Your task to perform on an android device: Open the stopwatch Image 0: 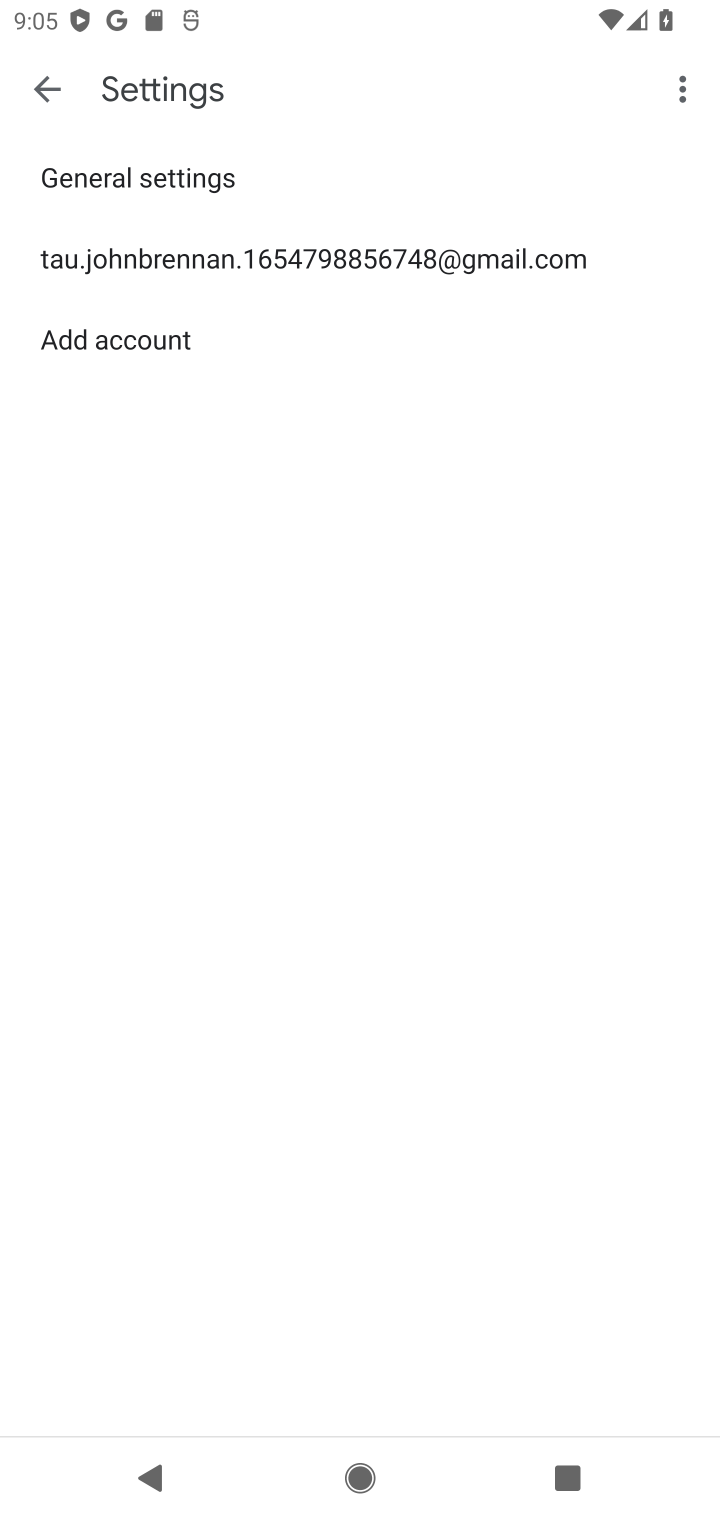
Step 0: press home button
Your task to perform on an android device: Open the stopwatch Image 1: 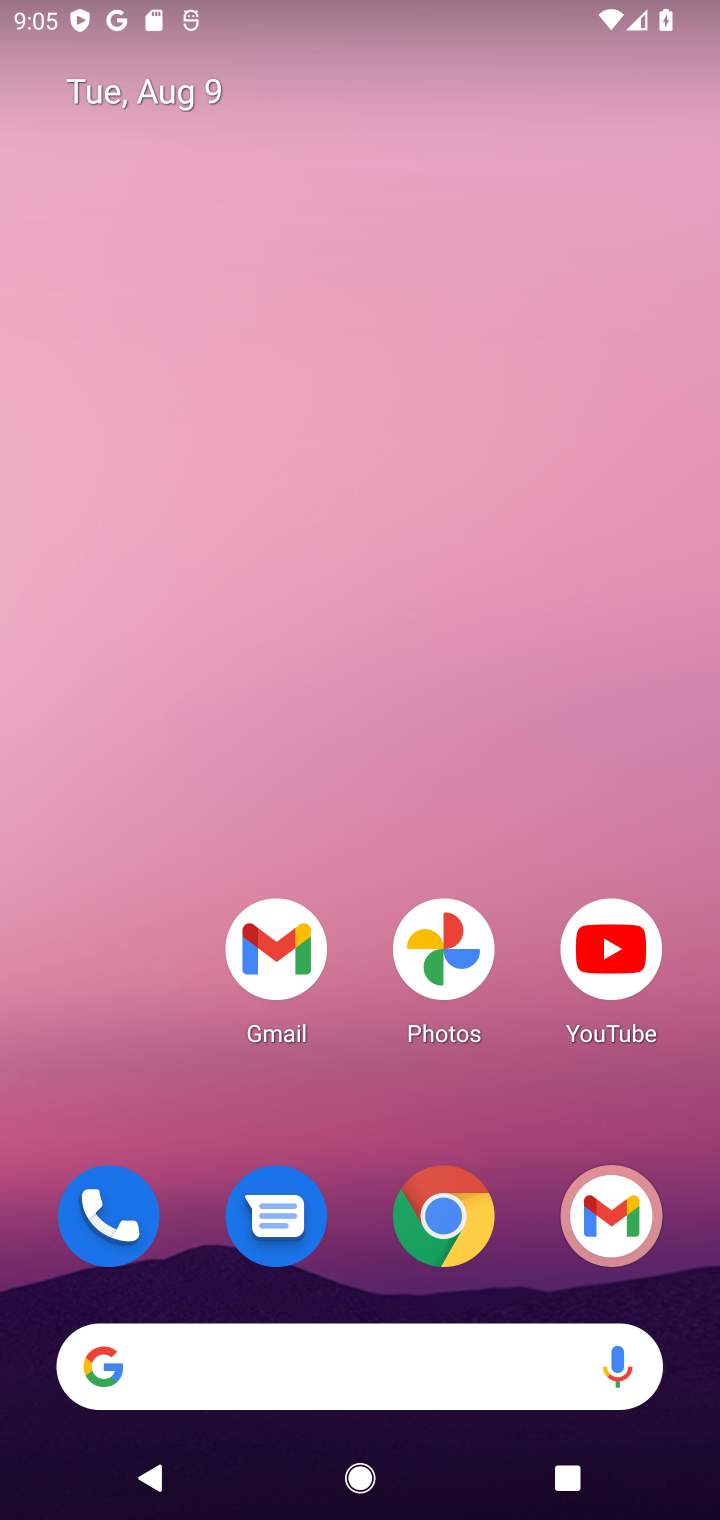
Step 1: drag from (318, 1315) to (462, 461)
Your task to perform on an android device: Open the stopwatch Image 2: 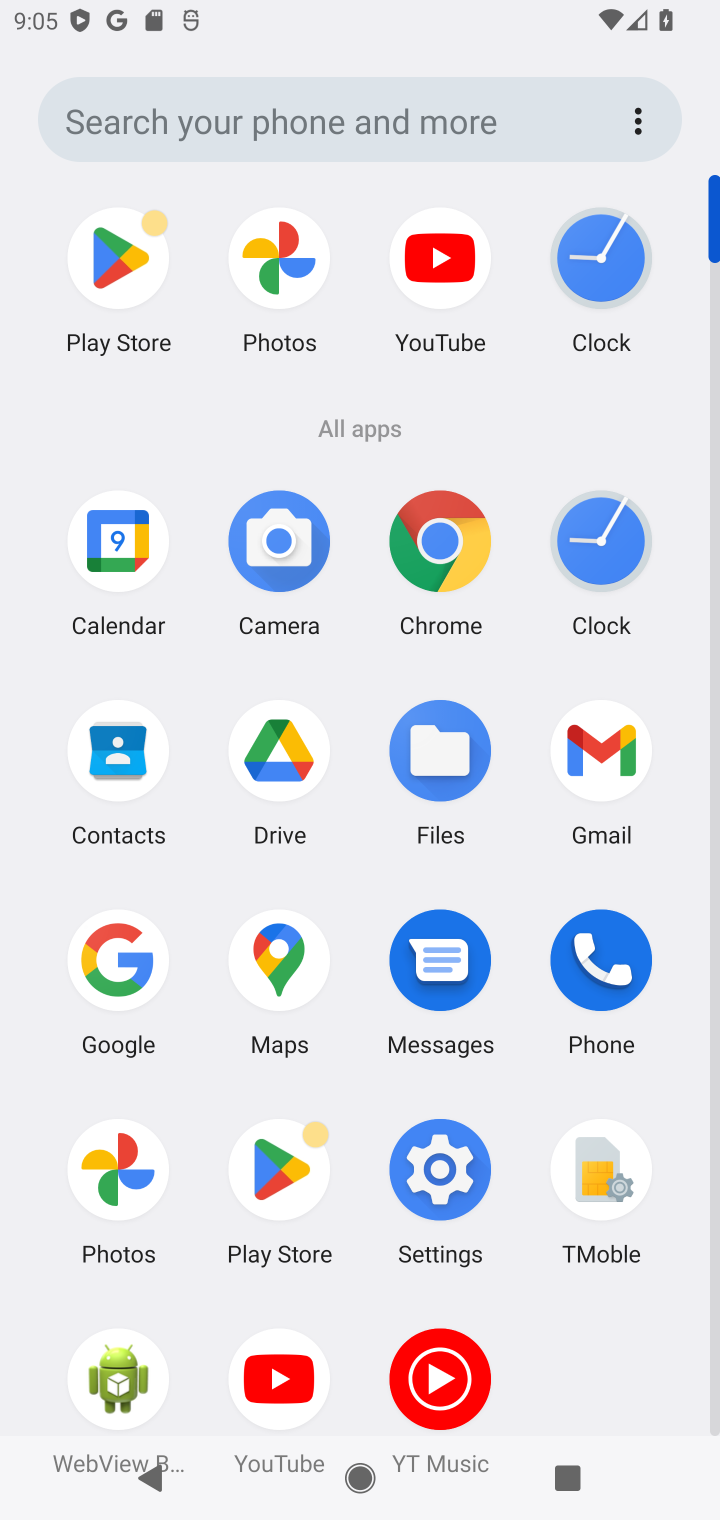
Step 2: click (593, 568)
Your task to perform on an android device: Open the stopwatch Image 3: 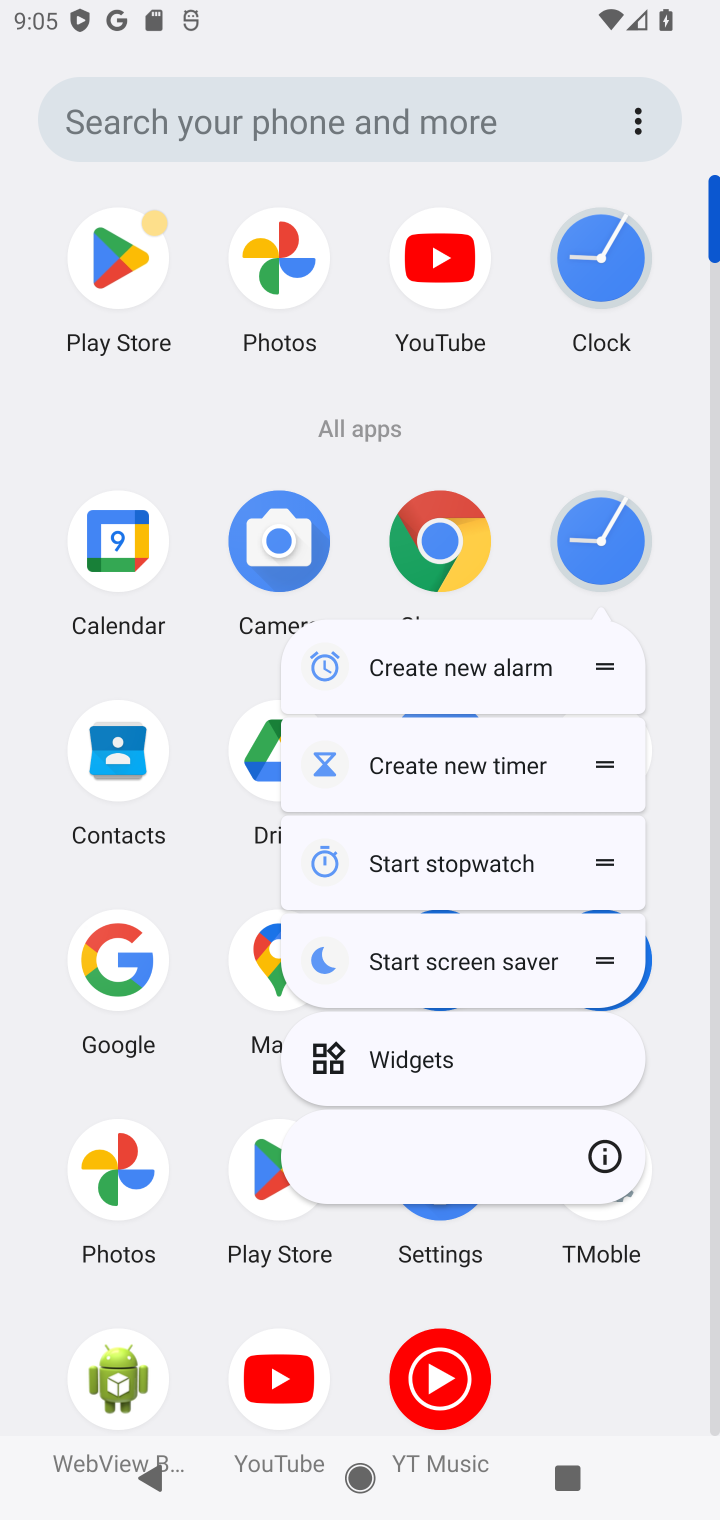
Step 3: click (585, 538)
Your task to perform on an android device: Open the stopwatch Image 4: 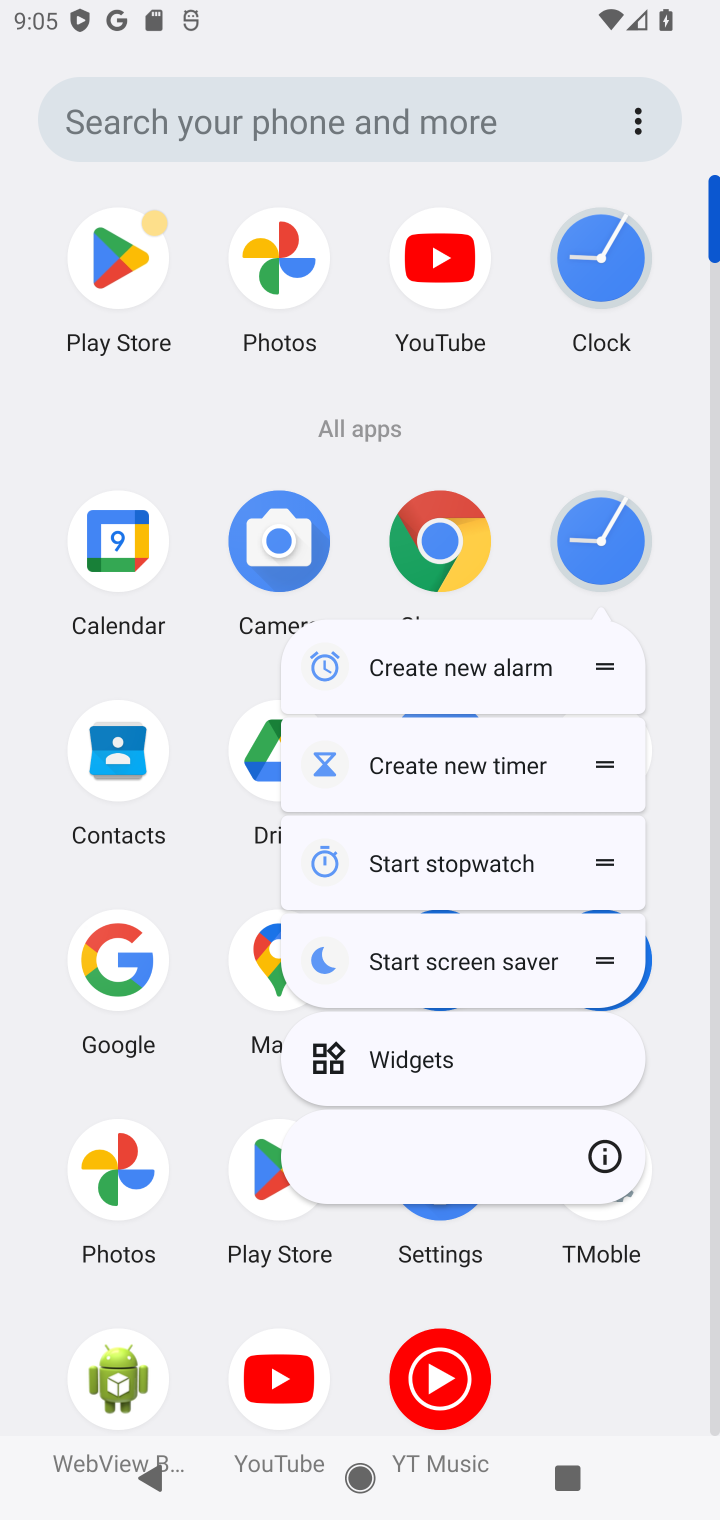
Step 4: click (618, 552)
Your task to perform on an android device: Open the stopwatch Image 5: 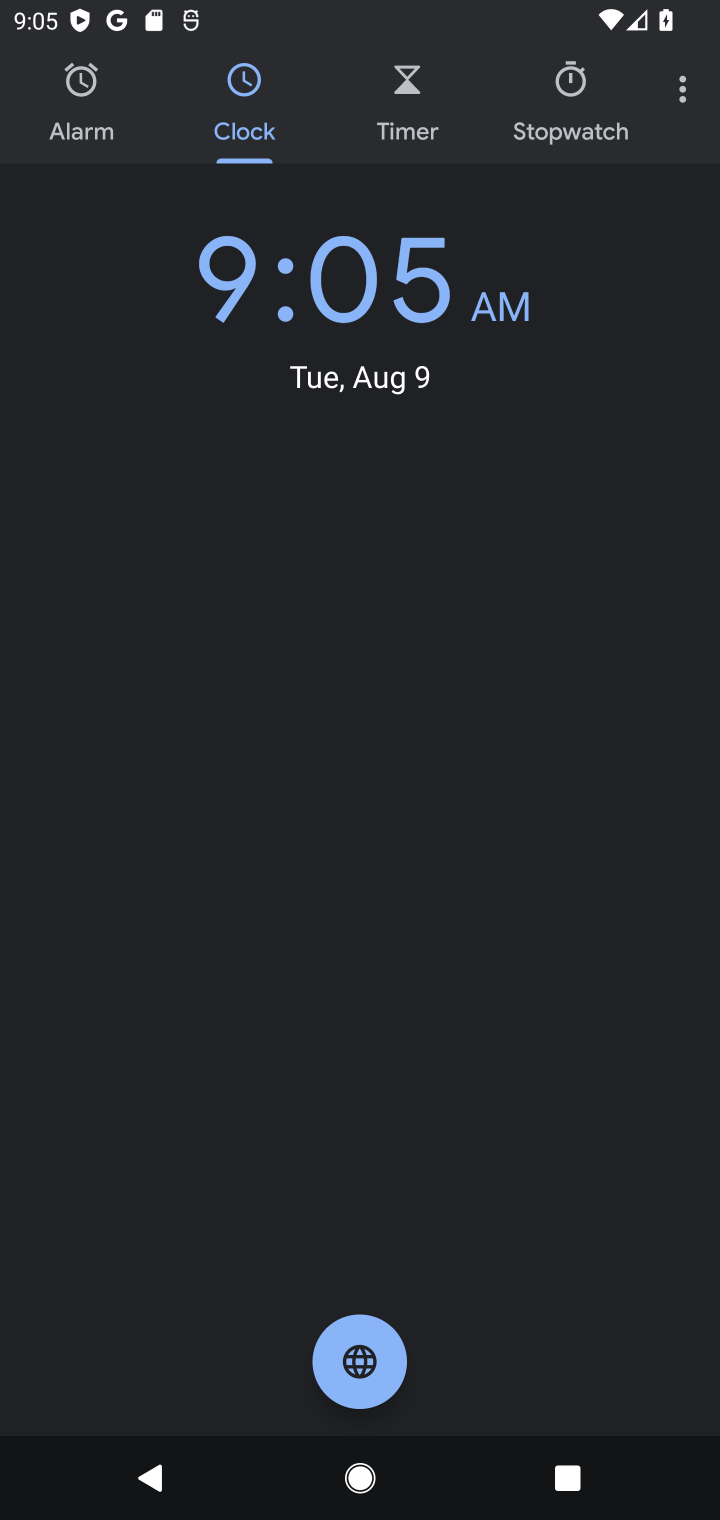
Step 5: click (566, 129)
Your task to perform on an android device: Open the stopwatch Image 6: 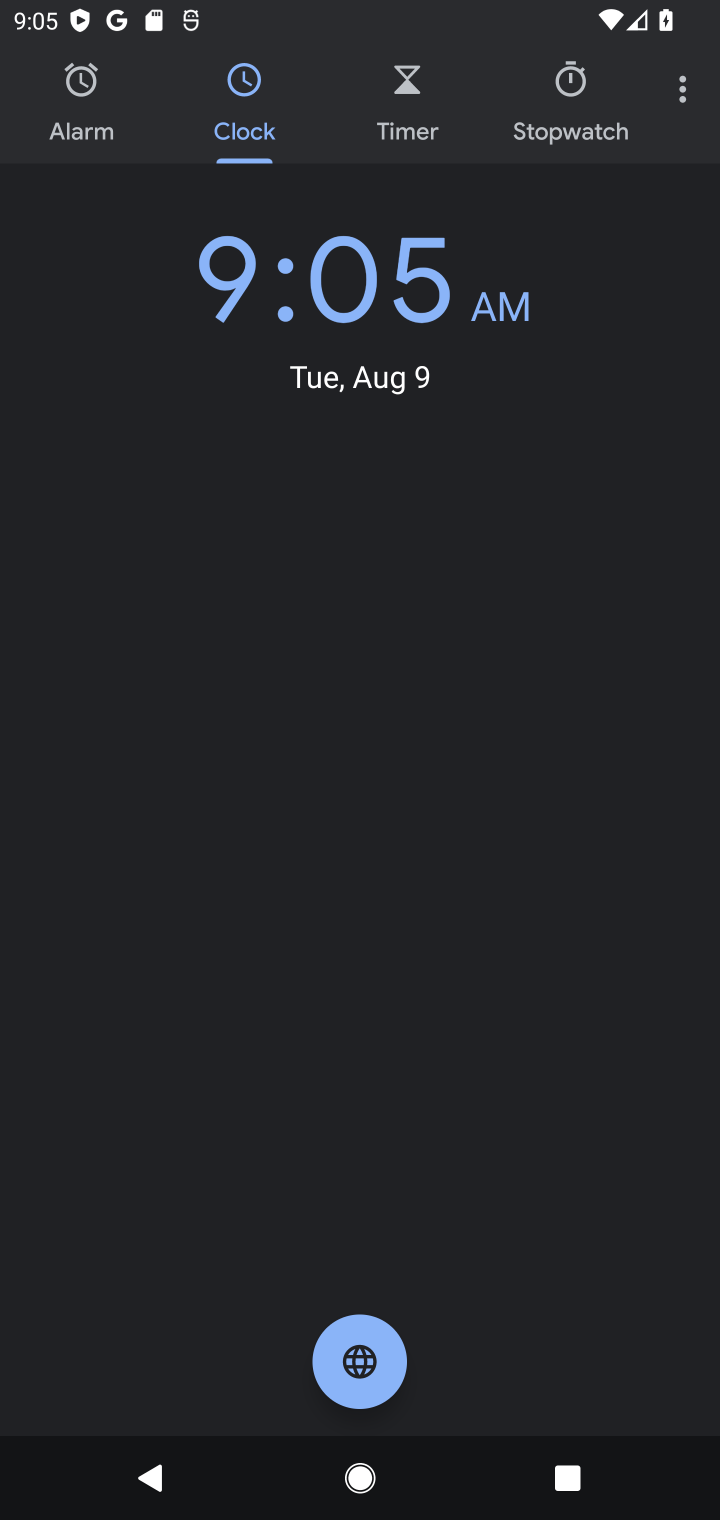
Step 6: click (565, 95)
Your task to perform on an android device: Open the stopwatch Image 7: 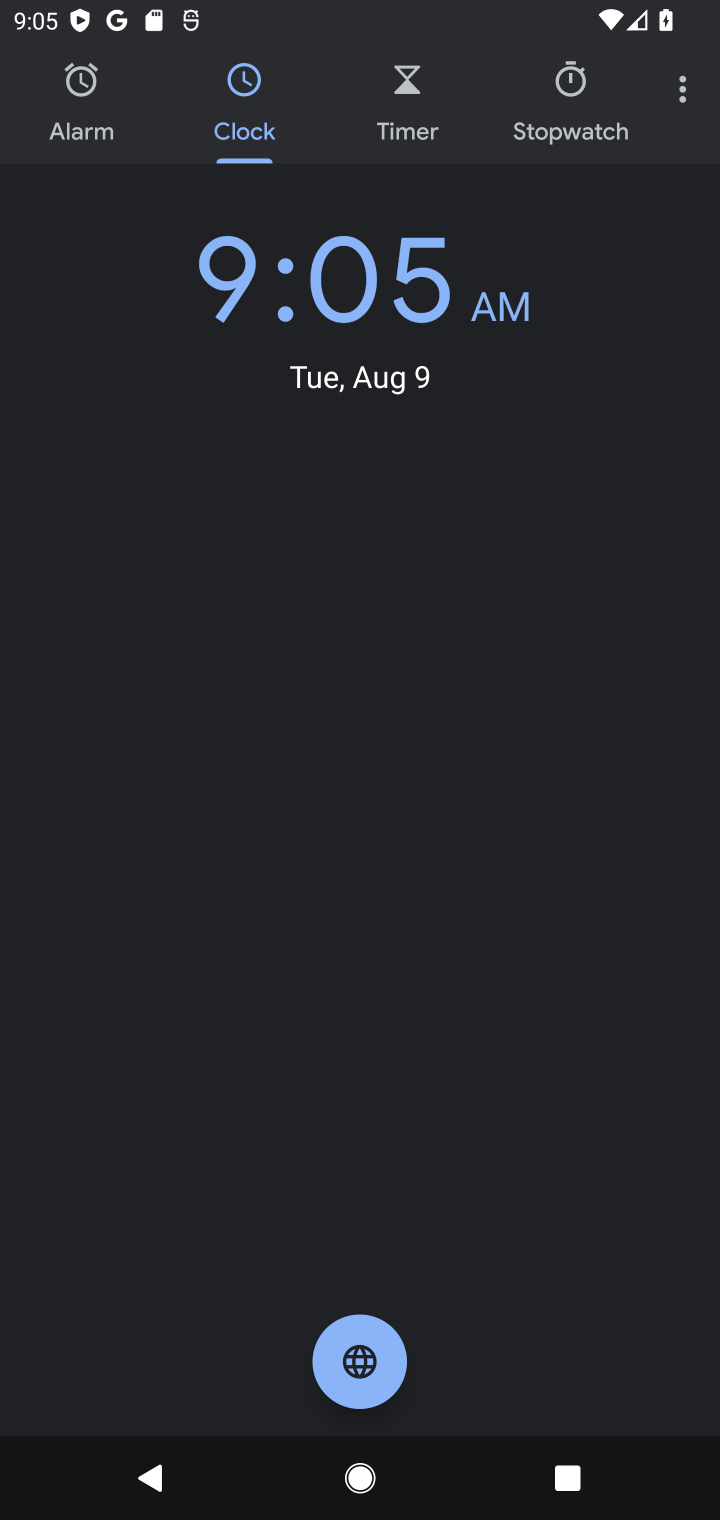
Step 7: click (577, 127)
Your task to perform on an android device: Open the stopwatch Image 8: 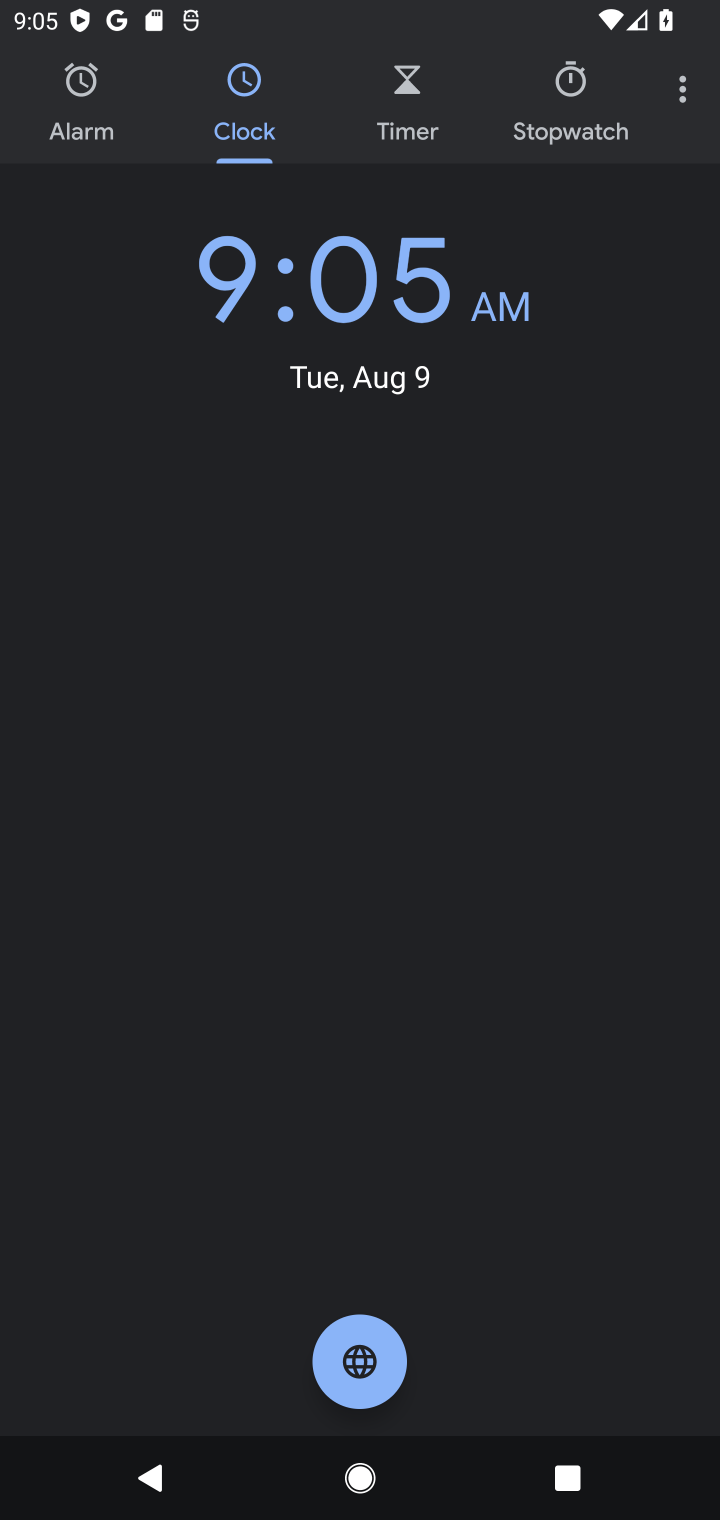
Step 8: click (563, 84)
Your task to perform on an android device: Open the stopwatch Image 9: 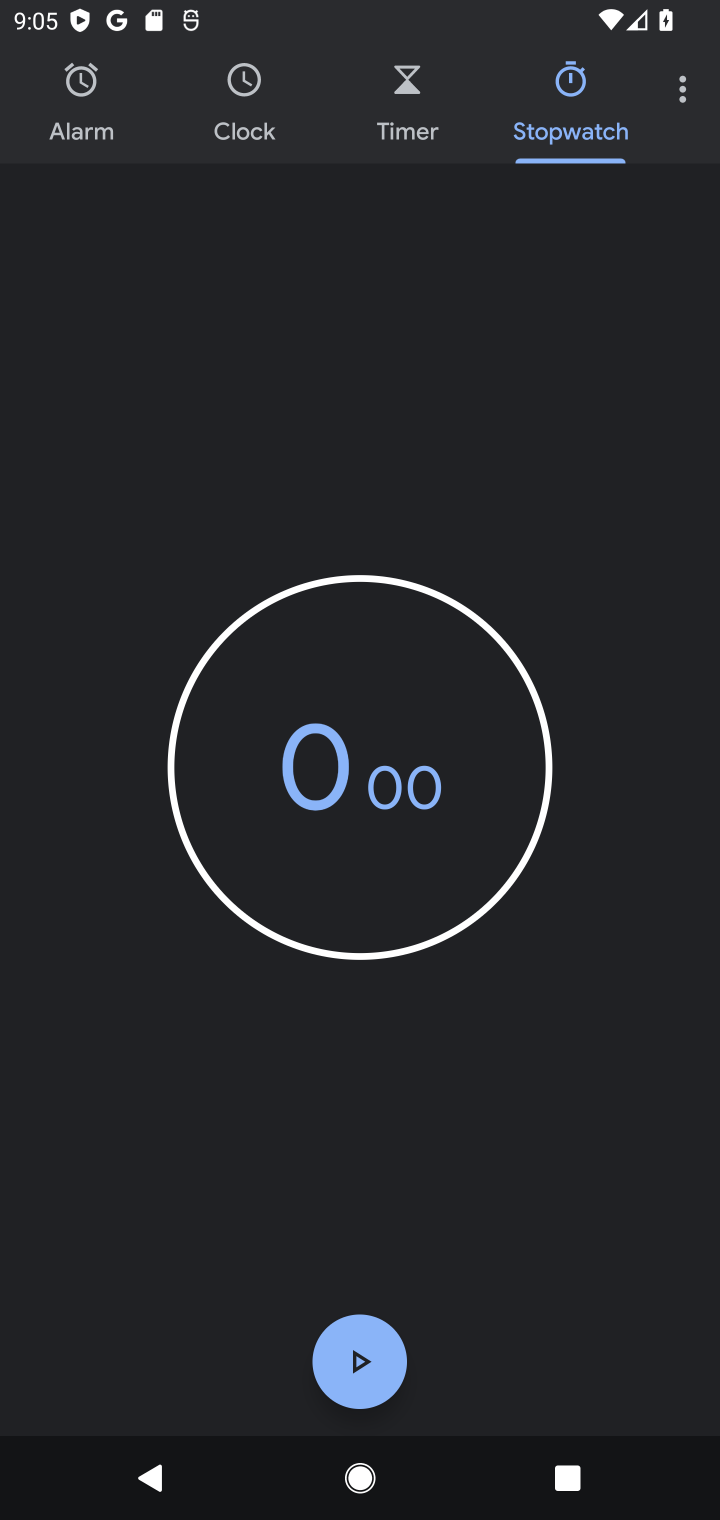
Step 9: task complete